Your task to perform on an android device: empty trash in google photos Image 0: 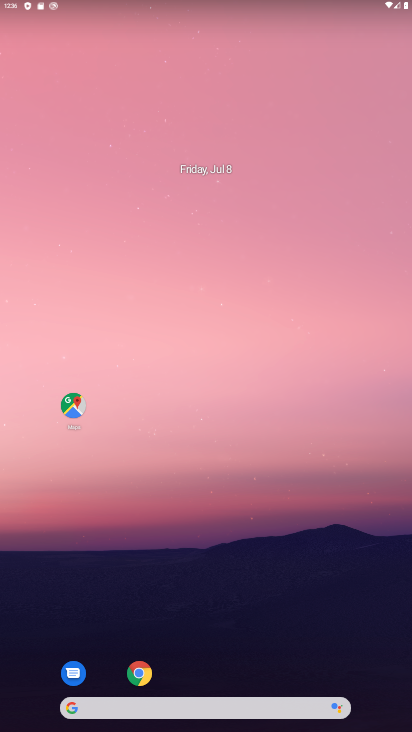
Step 0: drag from (208, 664) to (234, 29)
Your task to perform on an android device: empty trash in google photos Image 1: 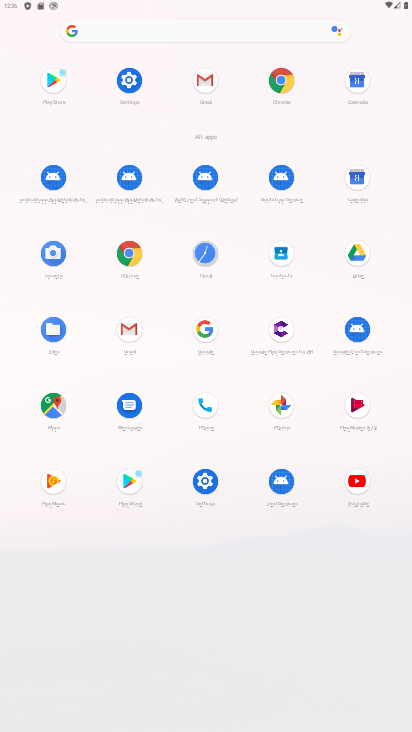
Step 1: click (273, 405)
Your task to perform on an android device: empty trash in google photos Image 2: 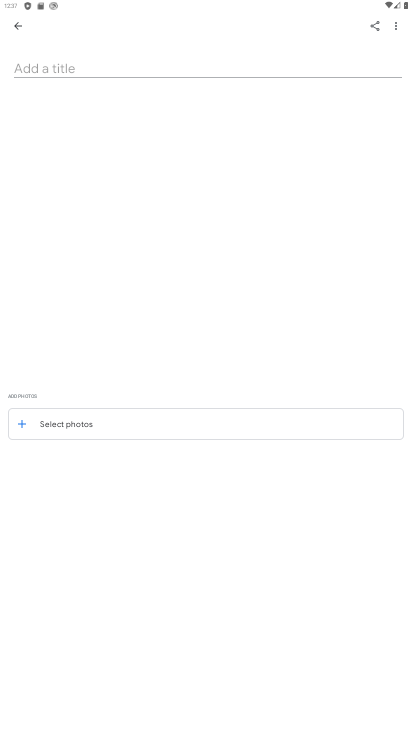
Step 2: click (18, 24)
Your task to perform on an android device: empty trash in google photos Image 3: 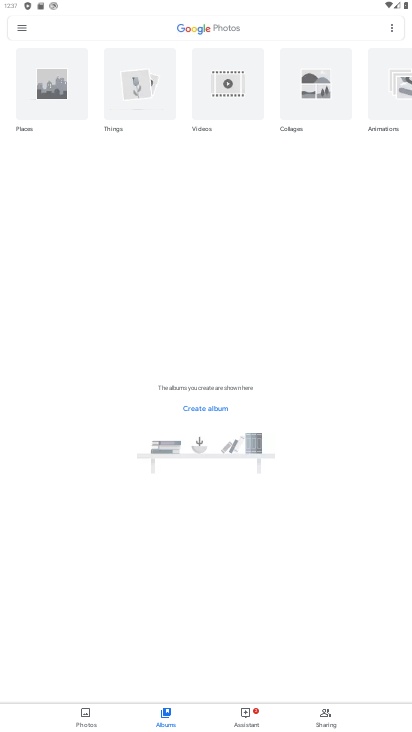
Step 3: click (22, 31)
Your task to perform on an android device: empty trash in google photos Image 4: 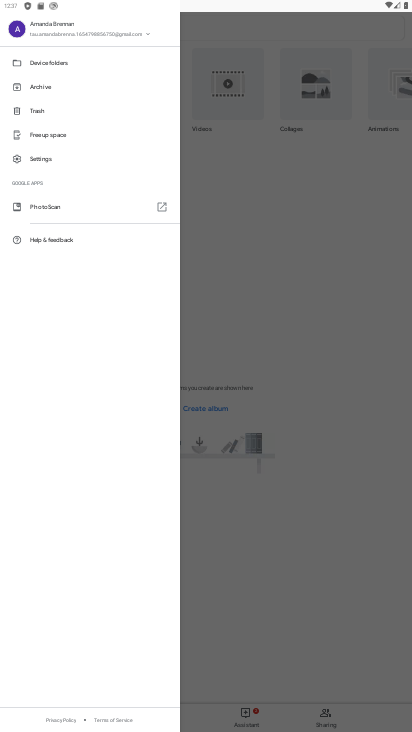
Step 4: click (45, 110)
Your task to perform on an android device: empty trash in google photos Image 5: 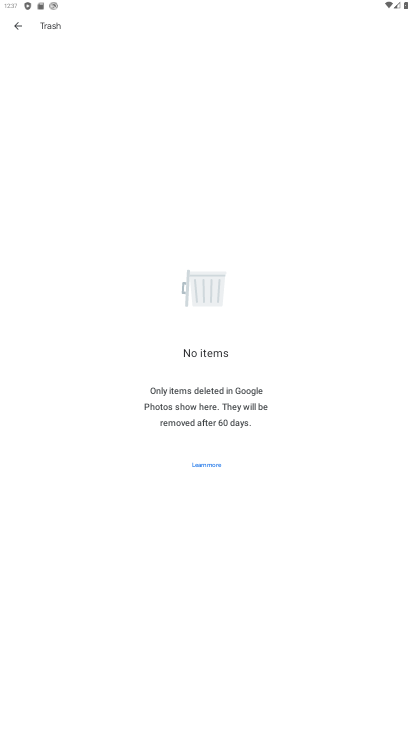
Step 5: task complete